Your task to perform on an android device: Set the phone to "Do not disturb". Image 0: 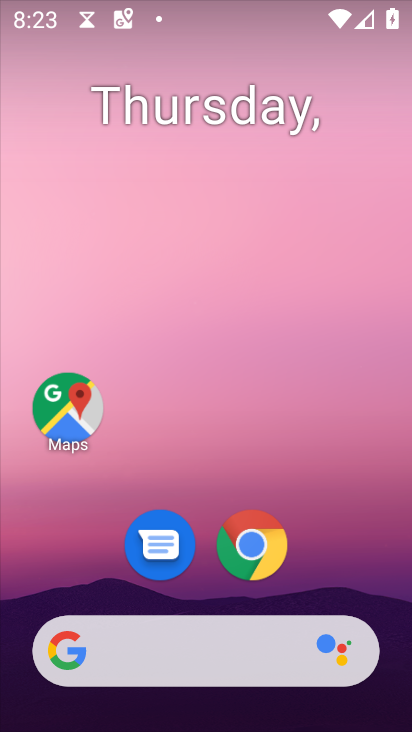
Step 0: drag from (326, 559) to (311, 139)
Your task to perform on an android device: Set the phone to "Do not disturb". Image 1: 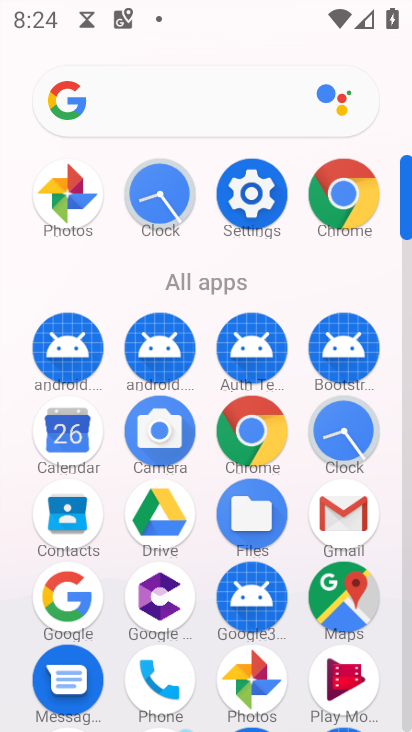
Step 1: click (249, 193)
Your task to perform on an android device: Set the phone to "Do not disturb". Image 2: 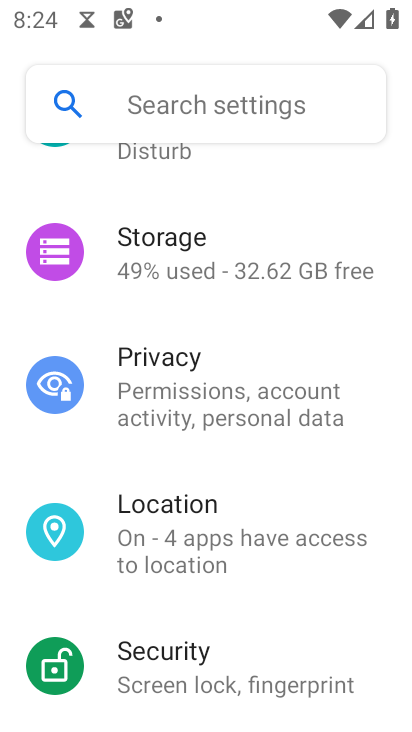
Step 2: drag from (245, 227) to (248, 353)
Your task to perform on an android device: Set the phone to "Do not disturb". Image 3: 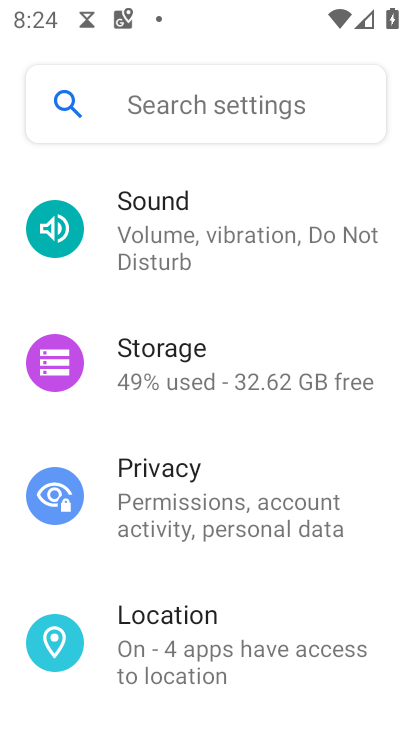
Step 3: click (228, 246)
Your task to perform on an android device: Set the phone to "Do not disturb". Image 4: 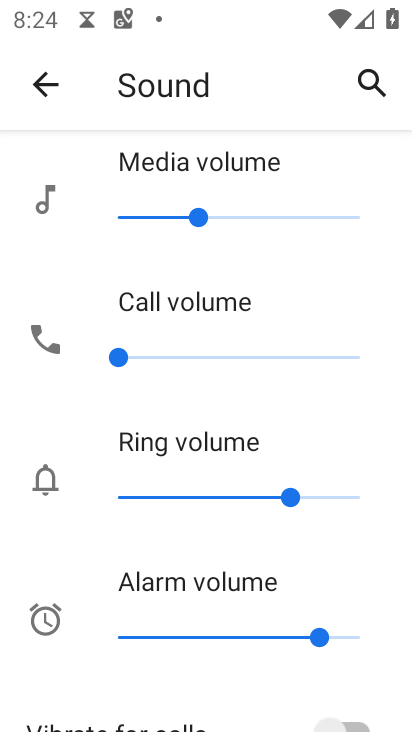
Step 4: drag from (172, 536) to (252, 412)
Your task to perform on an android device: Set the phone to "Do not disturb". Image 5: 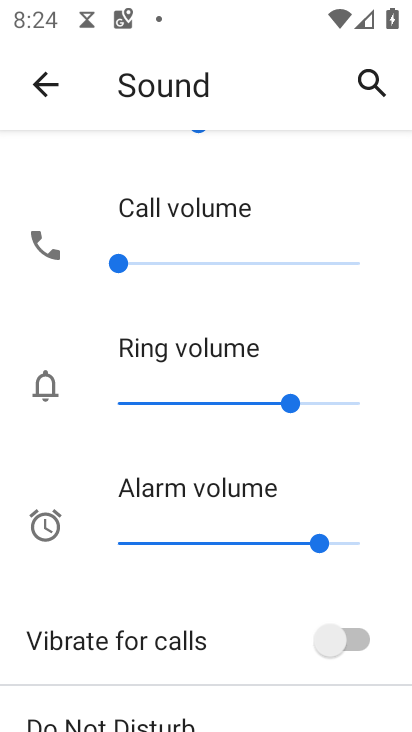
Step 5: drag from (183, 574) to (294, 442)
Your task to perform on an android device: Set the phone to "Do not disturb". Image 6: 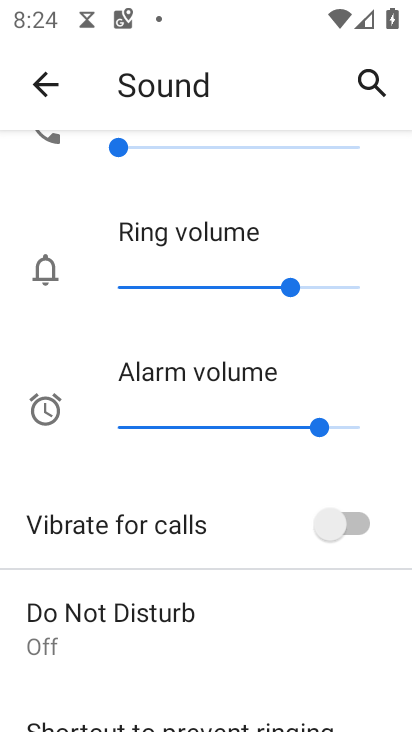
Step 6: click (173, 621)
Your task to perform on an android device: Set the phone to "Do not disturb". Image 7: 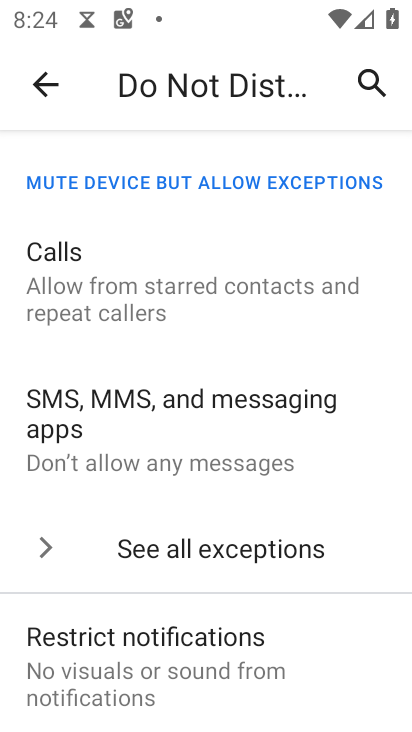
Step 7: drag from (175, 610) to (285, 465)
Your task to perform on an android device: Set the phone to "Do not disturb". Image 8: 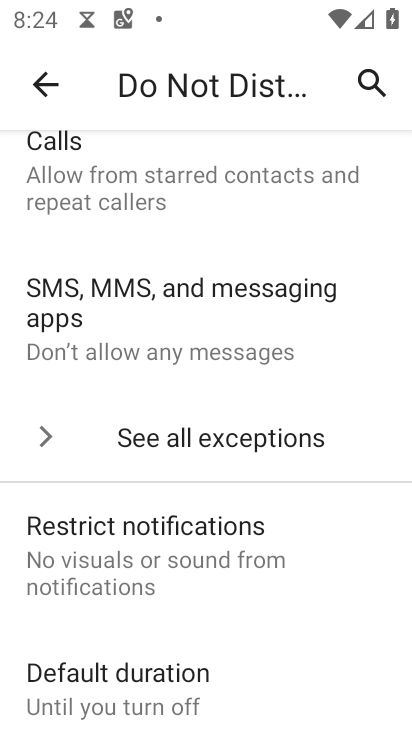
Step 8: drag from (166, 619) to (289, 482)
Your task to perform on an android device: Set the phone to "Do not disturb". Image 9: 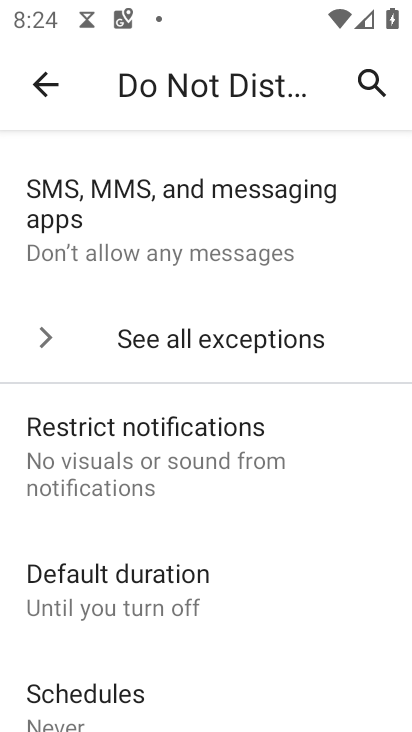
Step 9: drag from (129, 631) to (268, 461)
Your task to perform on an android device: Set the phone to "Do not disturb". Image 10: 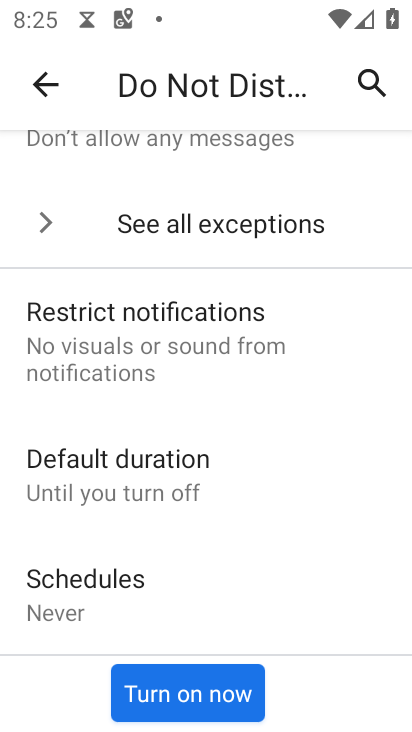
Step 10: click (192, 698)
Your task to perform on an android device: Set the phone to "Do not disturb". Image 11: 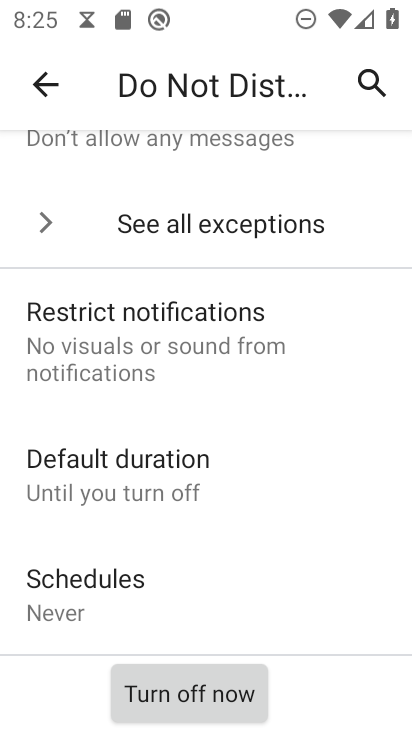
Step 11: task complete